Your task to perform on an android device: turn off picture-in-picture Image 0: 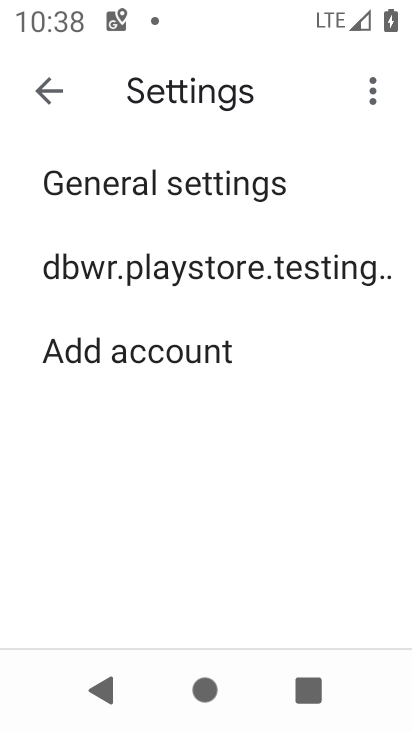
Step 0: press home button
Your task to perform on an android device: turn off picture-in-picture Image 1: 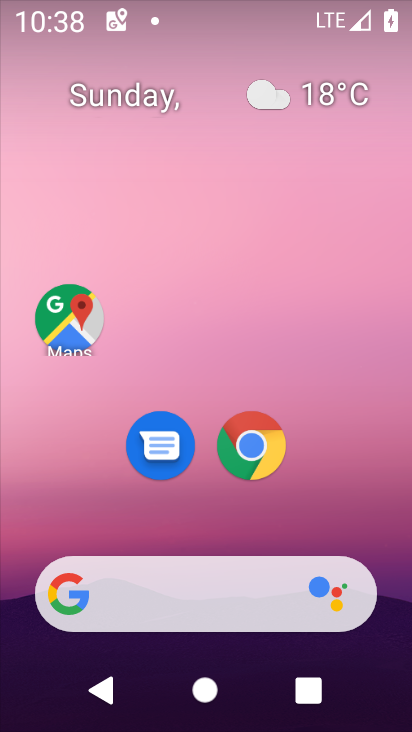
Step 1: click (248, 437)
Your task to perform on an android device: turn off picture-in-picture Image 2: 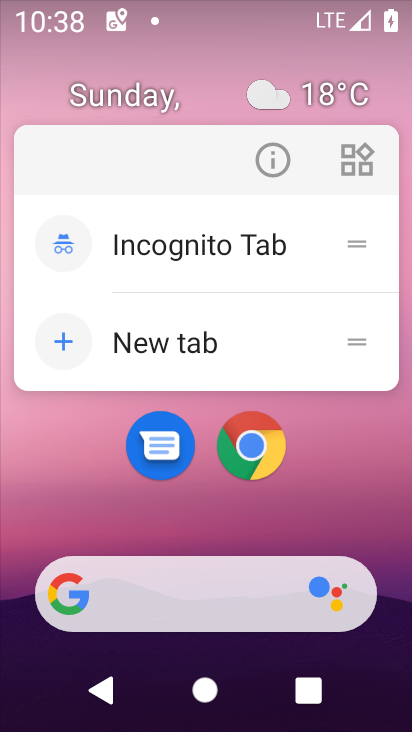
Step 2: click (274, 150)
Your task to perform on an android device: turn off picture-in-picture Image 3: 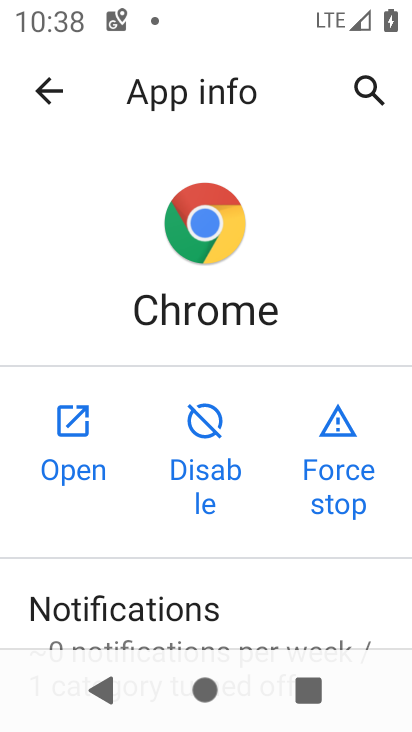
Step 3: drag from (239, 609) to (241, 0)
Your task to perform on an android device: turn off picture-in-picture Image 4: 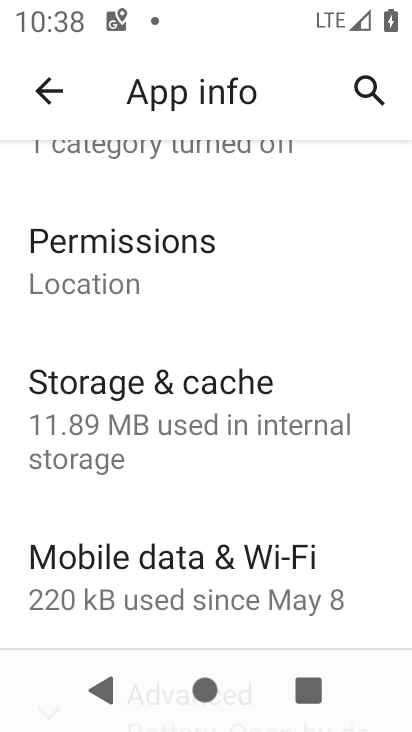
Step 4: drag from (210, 615) to (204, 124)
Your task to perform on an android device: turn off picture-in-picture Image 5: 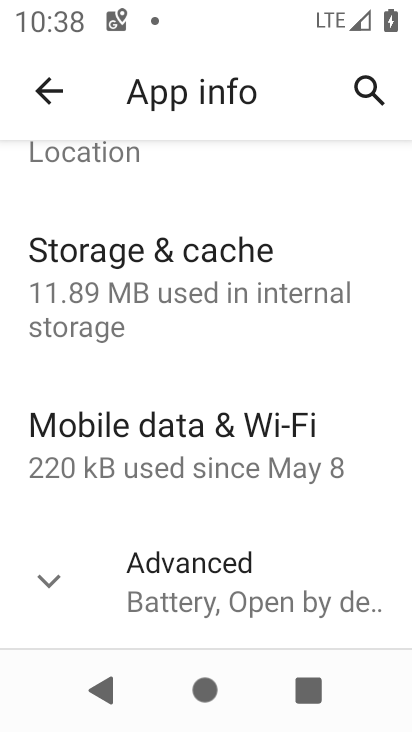
Step 5: click (44, 575)
Your task to perform on an android device: turn off picture-in-picture Image 6: 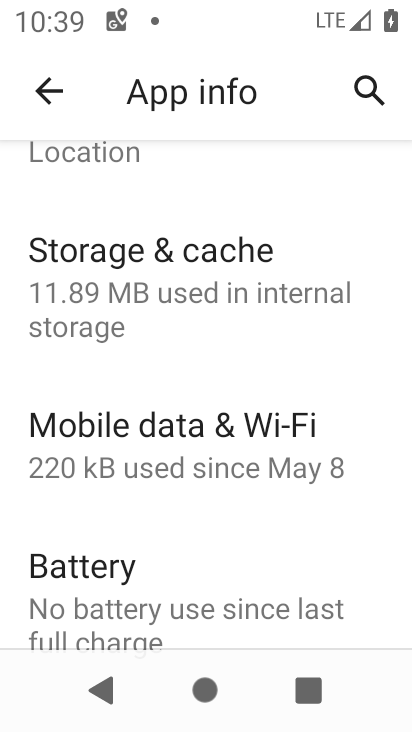
Step 6: drag from (185, 612) to (188, 238)
Your task to perform on an android device: turn off picture-in-picture Image 7: 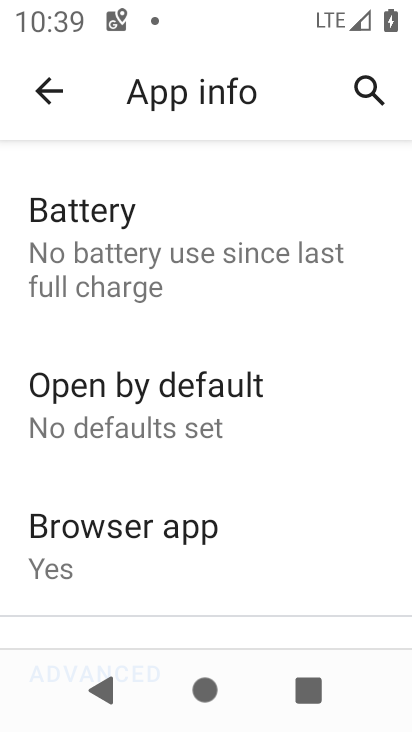
Step 7: drag from (124, 597) to (185, 115)
Your task to perform on an android device: turn off picture-in-picture Image 8: 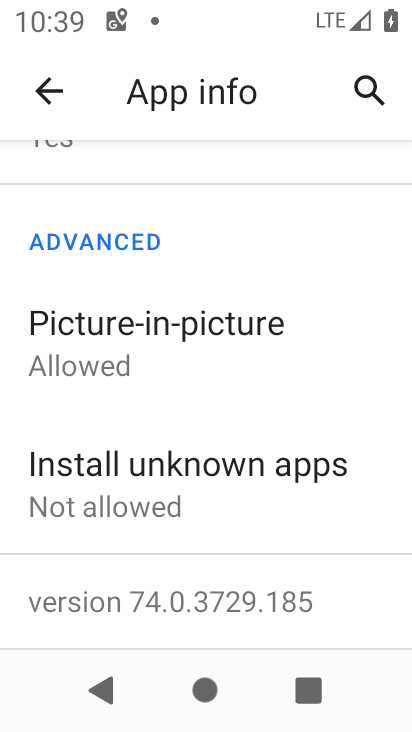
Step 8: click (176, 364)
Your task to perform on an android device: turn off picture-in-picture Image 9: 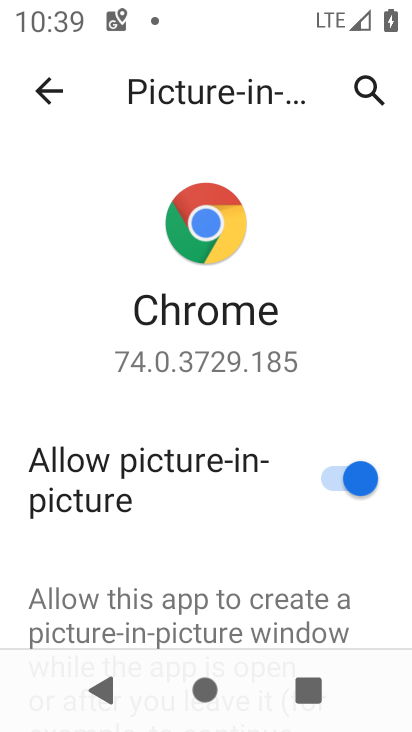
Step 9: click (334, 495)
Your task to perform on an android device: turn off picture-in-picture Image 10: 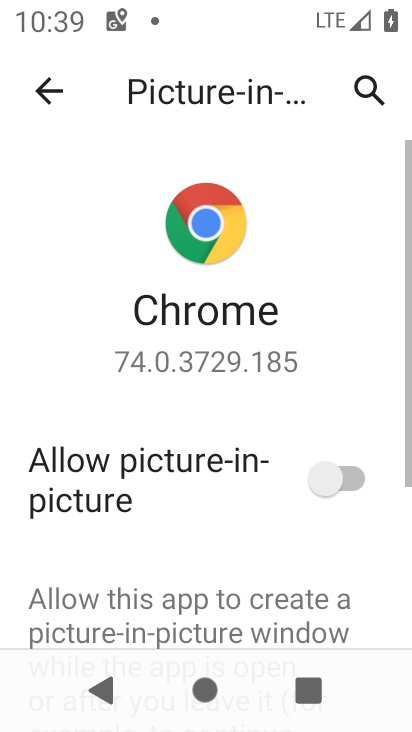
Step 10: task complete